Your task to perform on an android device: Open the phone app and click the voicemail tab. Image 0: 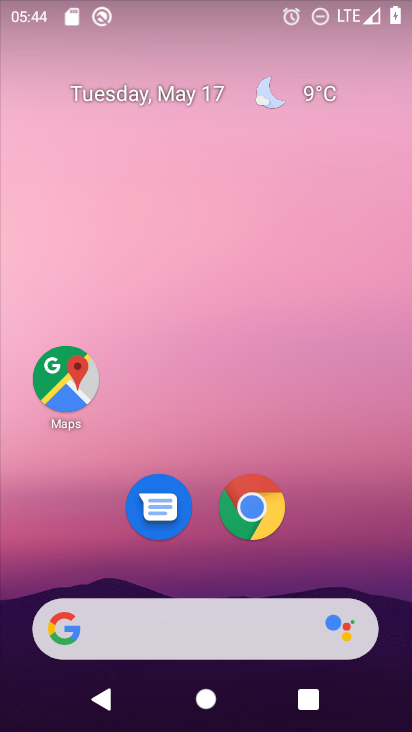
Step 0: drag from (322, 436) to (195, 9)
Your task to perform on an android device: Open the phone app and click the voicemail tab. Image 1: 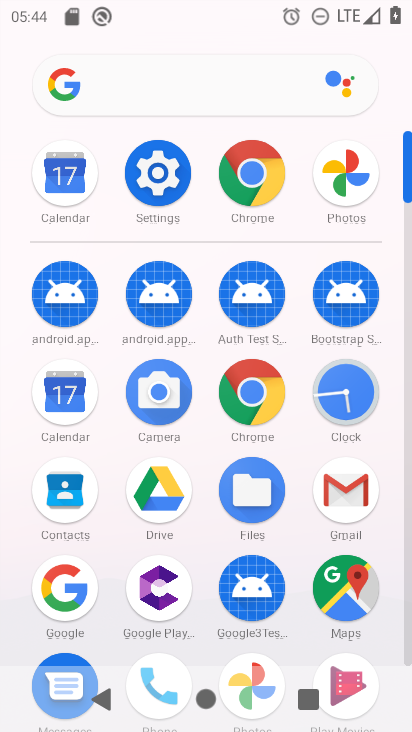
Step 1: click (161, 688)
Your task to perform on an android device: Open the phone app and click the voicemail tab. Image 2: 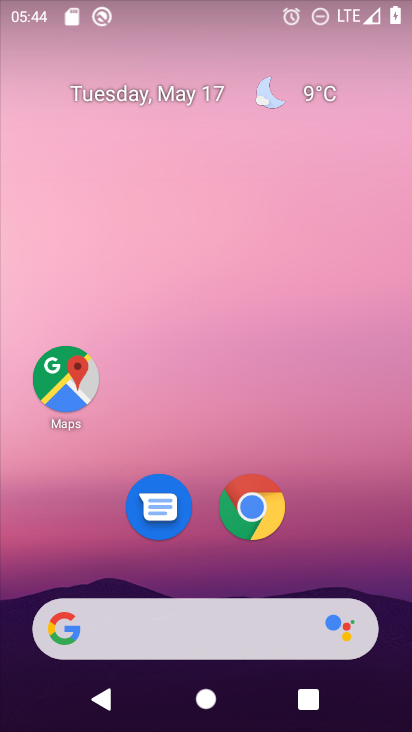
Step 2: drag from (343, 544) to (229, 3)
Your task to perform on an android device: Open the phone app and click the voicemail tab. Image 3: 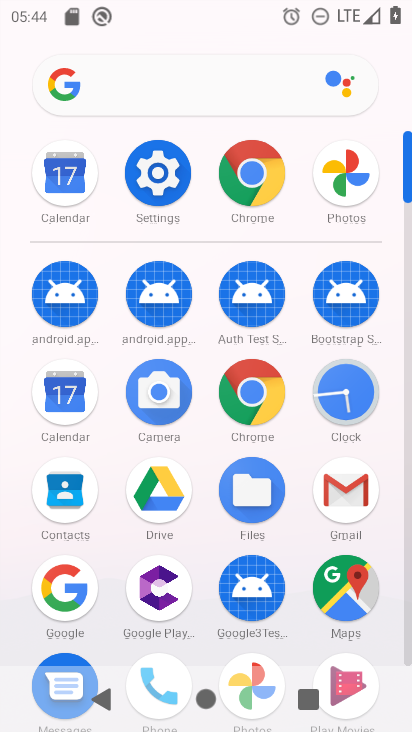
Step 3: drag from (240, 575) to (220, 111)
Your task to perform on an android device: Open the phone app and click the voicemail tab. Image 4: 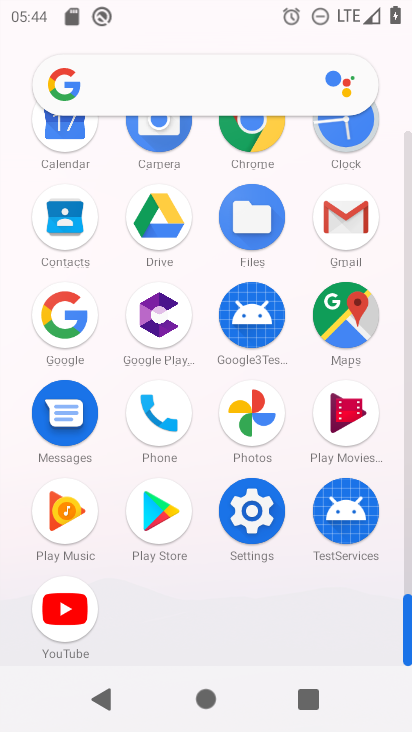
Step 4: click (165, 442)
Your task to perform on an android device: Open the phone app and click the voicemail tab. Image 5: 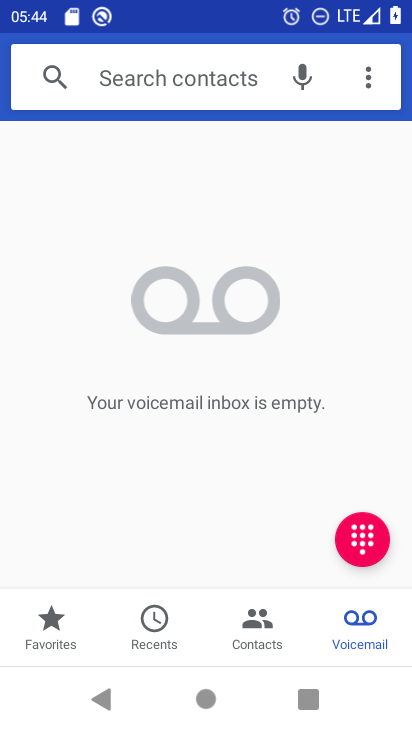
Step 5: click (363, 635)
Your task to perform on an android device: Open the phone app and click the voicemail tab. Image 6: 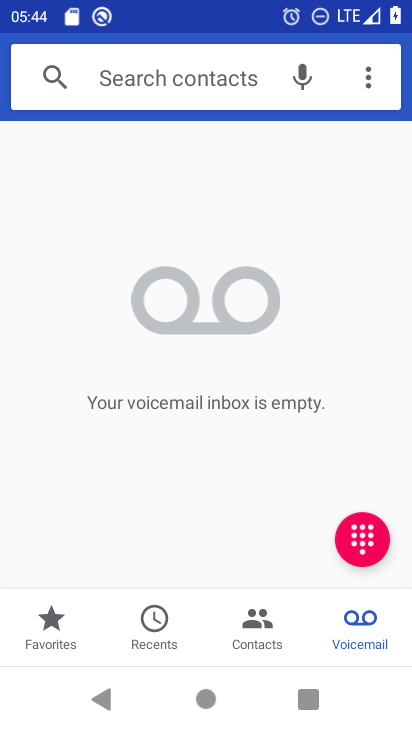
Step 6: task complete